Your task to perform on an android device: Go to Maps Image 0: 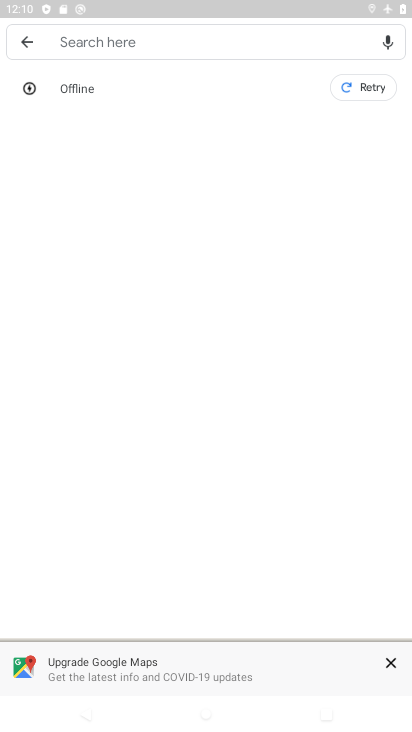
Step 0: task complete